Your task to perform on an android device: Open maps Image 0: 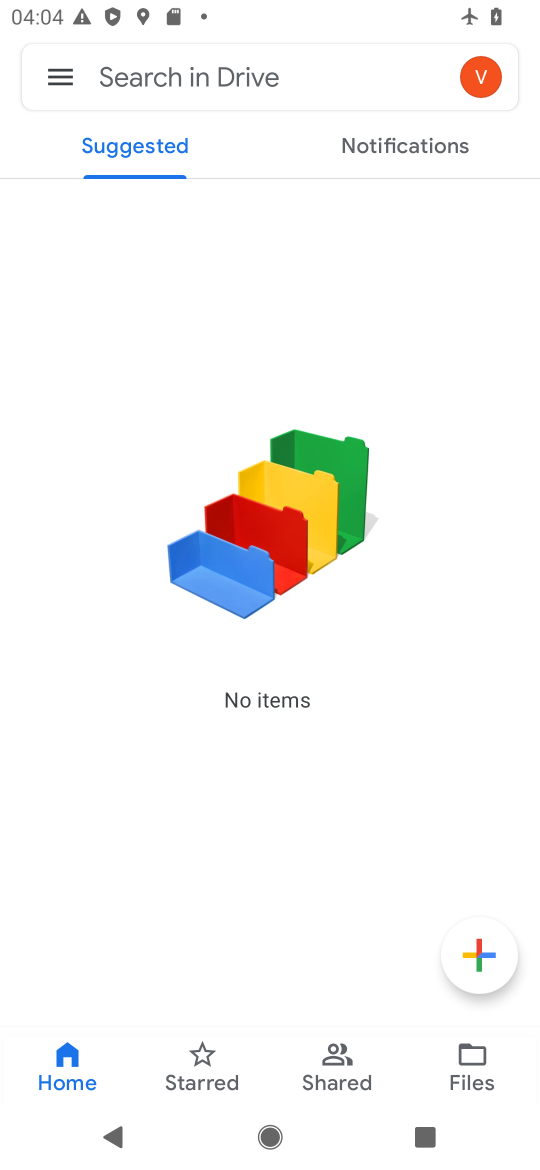
Step 0: press home button
Your task to perform on an android device: Open maps Image 1: 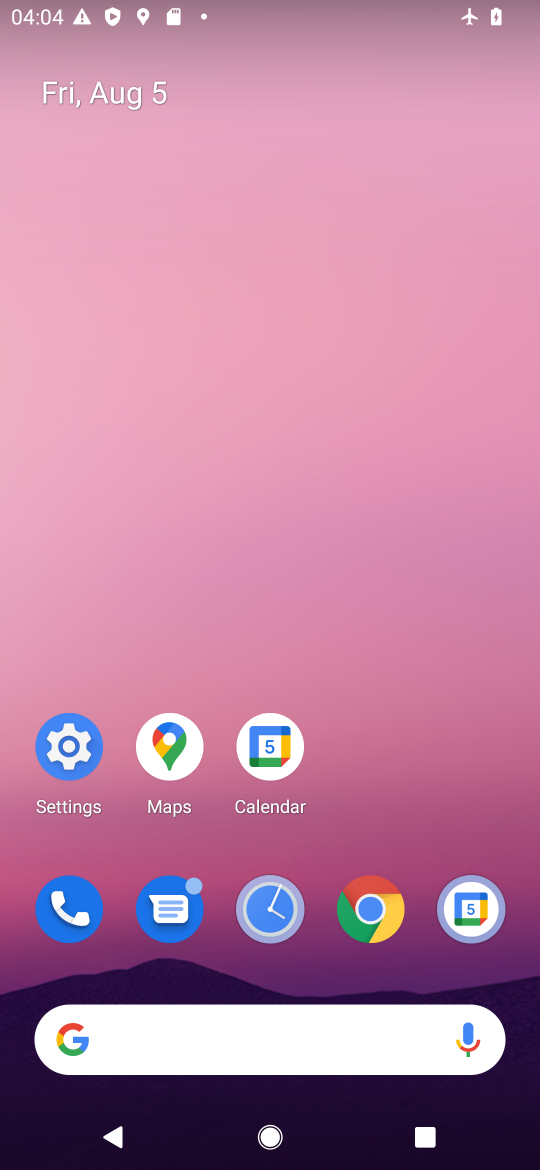
Step 1: click (168, 748)
Your task to perform on an android device: Open maps Image 2: 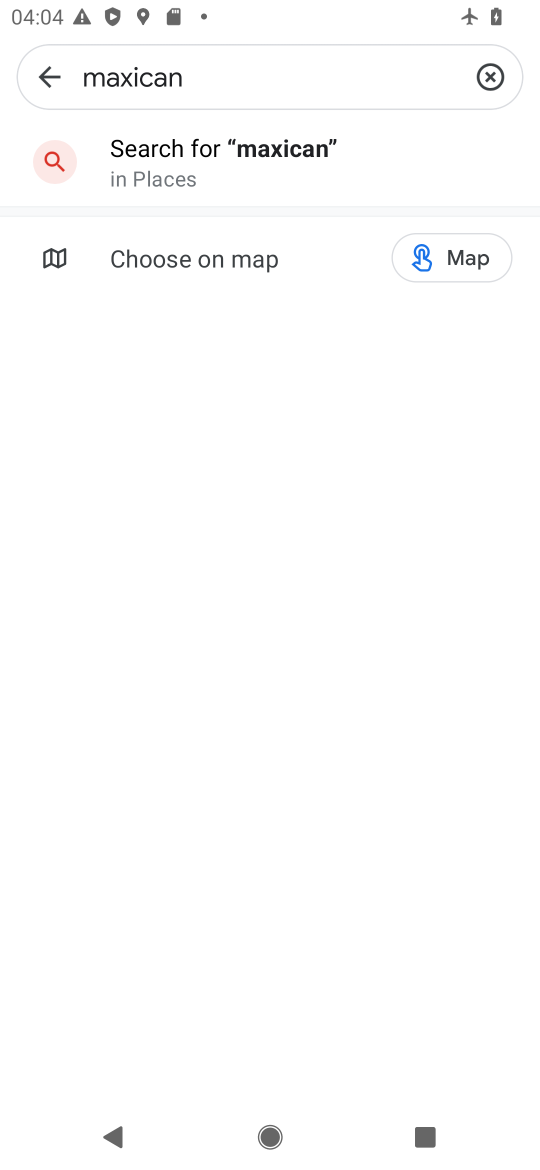
Step 2: click (43, 65)
Your task to perform on an android device: Open maps Image 3: 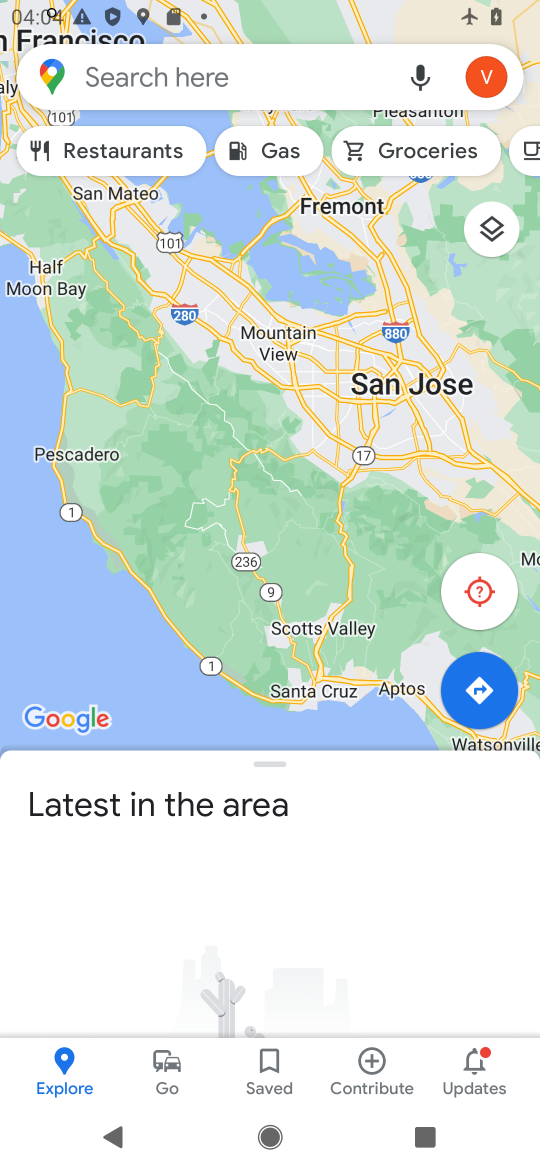
Step 3: task complete